Your task to perform on an android device: Open the map Image 0: 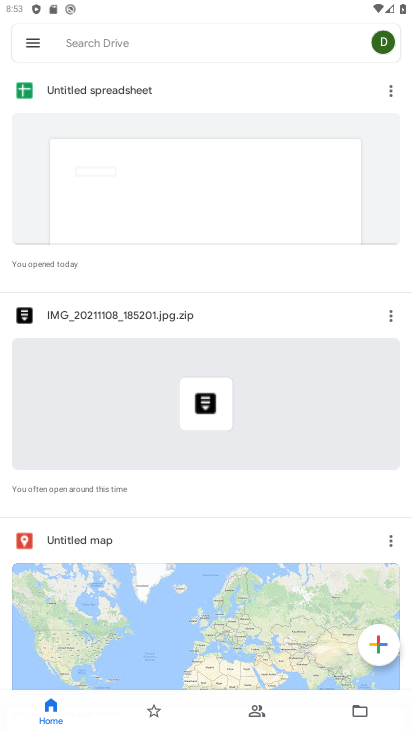
Step 0: press home button
Your task to perform on an android device: Open the map Image 1: 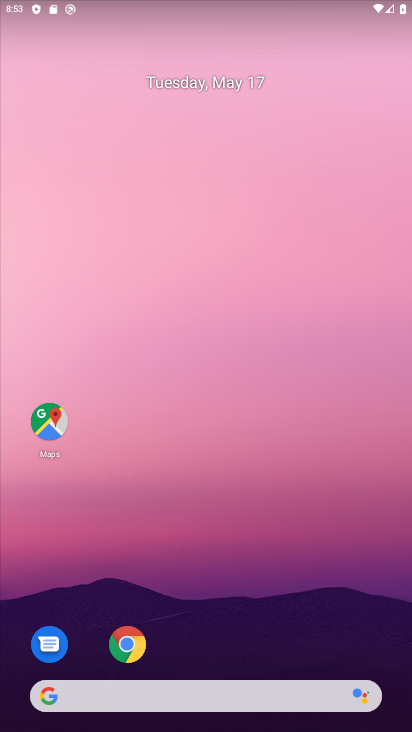
Step 1: click (161, 5)
Your task to perform on an android device: Open the map Image 2: 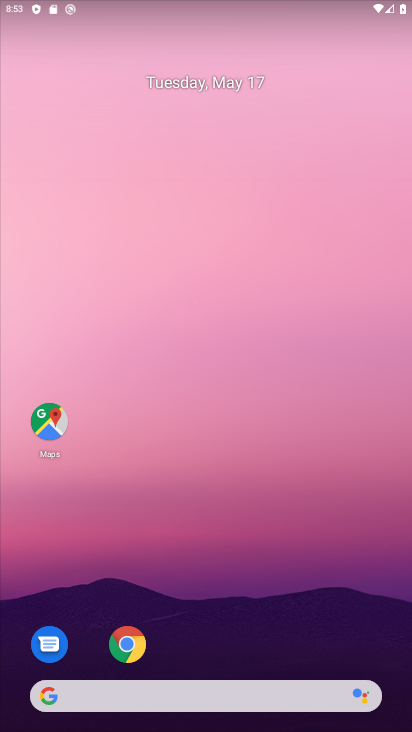
Step 2: click (49, 416)
Your task to perform on an android device: Open the map Image 3: 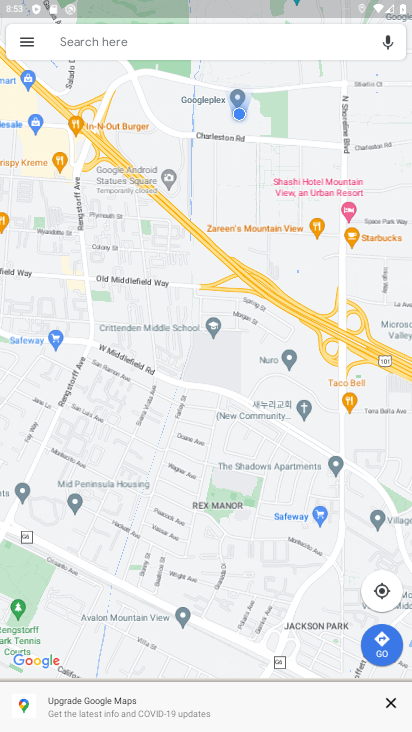
Step 3: click (25, 38)
Your task to perform on an android device: Open the map Image 4: 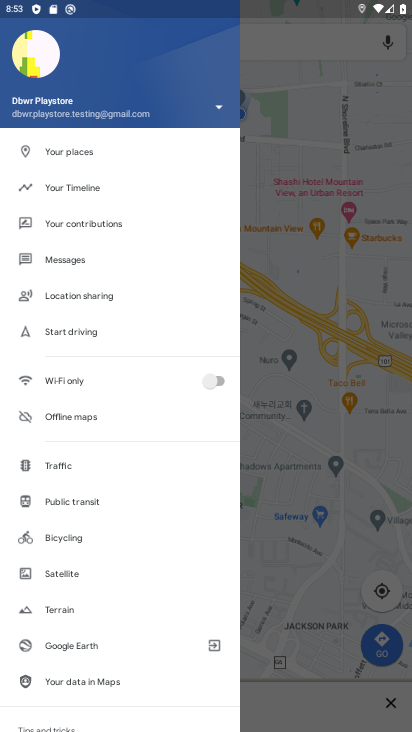
Step 4: drag from (129, 644) to (125, 112)
Your task to perform on an android device: Open the map Image 5: 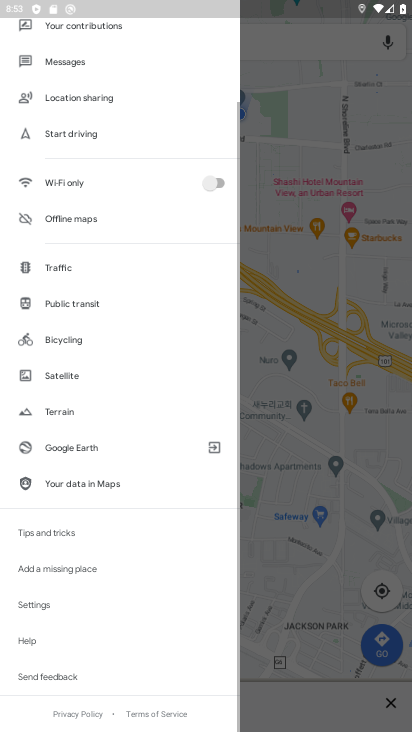
Step 5: click (358, 387)
Your task to perform on an android device: Open the map Image 6: 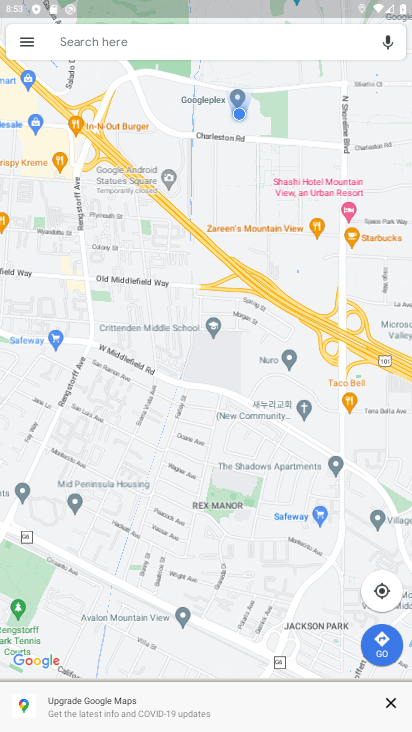
Step 6: task complete